Your task to perform on an android device: Toggle the flashlight Image 0: 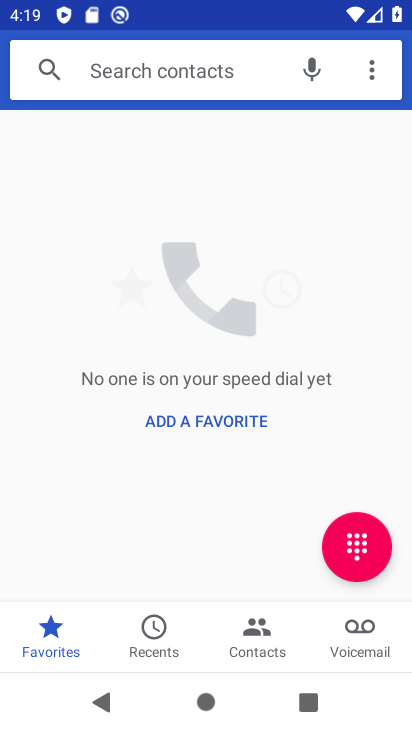
Step 0: drag from (287, 7) to (353, 422)
Your task to perform on an android device: Toggle the flashlight Image 1: 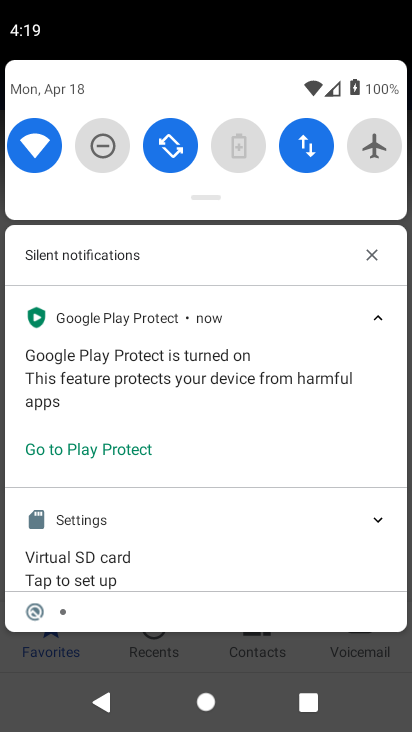
Step 1: task complete